Your task to perform on an android device: Open network settings Image 0: 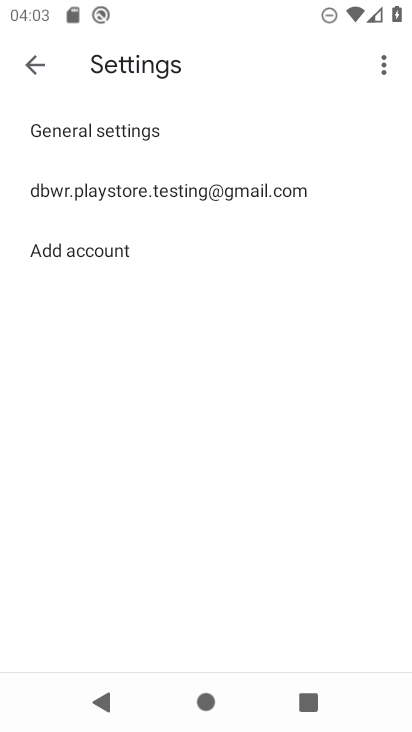
Step 0: press home button
Your task to perform on an android device: Open network settings Image 1: 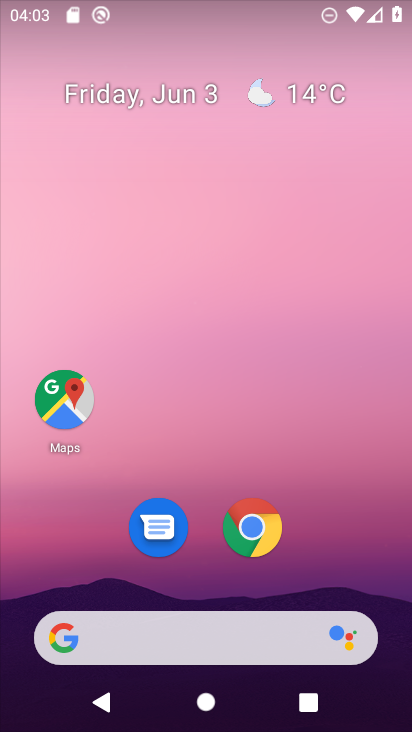
Step 1: drag from (353, 547) to (167, 53)
Your task to perform on an android device: Open network settings Image 2: 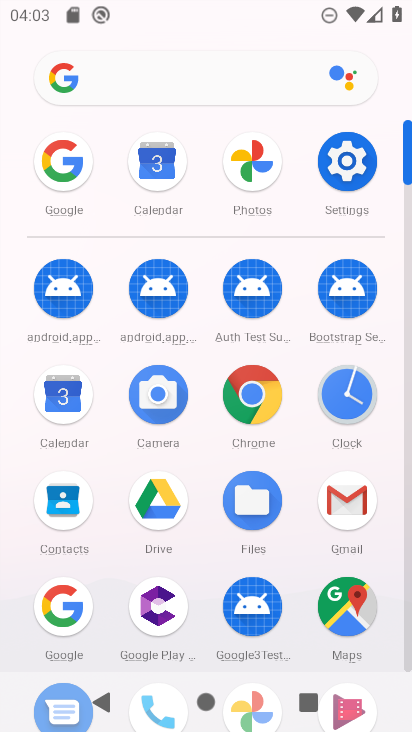
Step 2: click (346, 157)
Your task to perform on an android device: Open network settings Image 3: 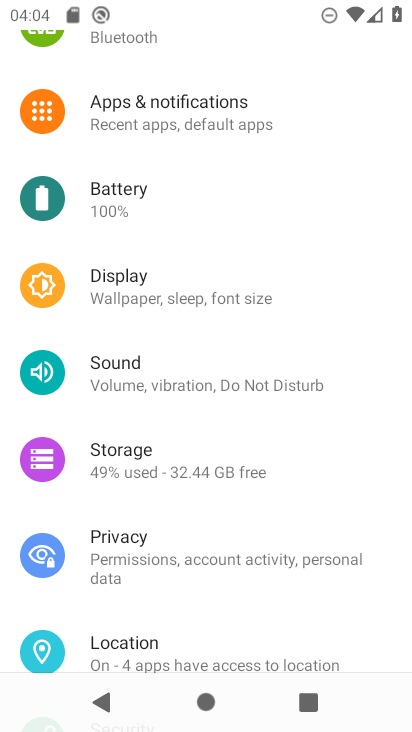
Step 3: drag from (233, 201) to (235, 416)
Your task to perform on an android device: Open network settings Image 4: 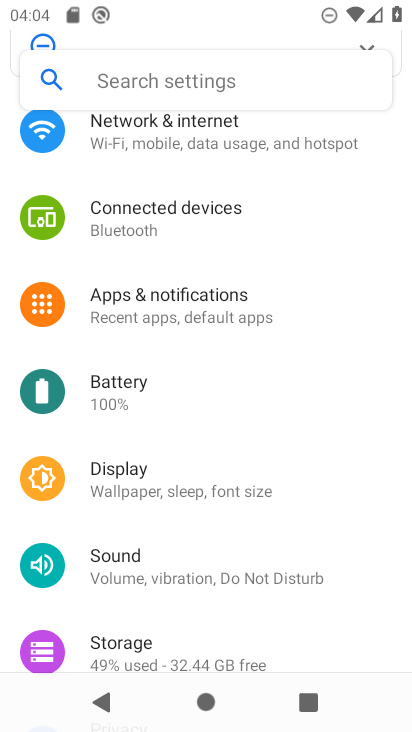
Step 4: drag from (204, 240) to (224, 423)
Your task to perform on an android device: Open network settings Image 5: 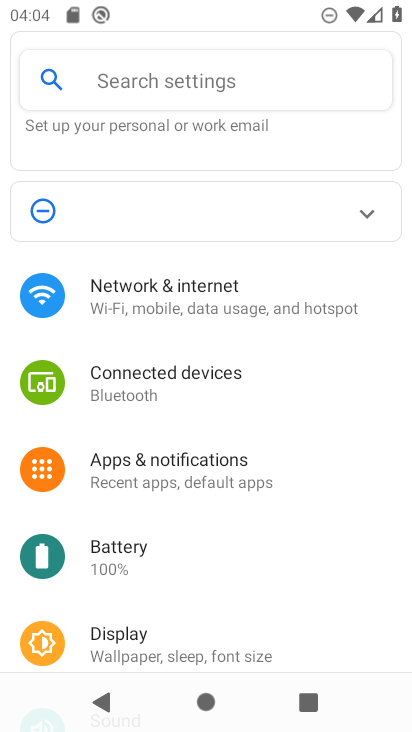
Step 5: click (184, 300)
Your task to perform on an android device: Open network settings Image 6: 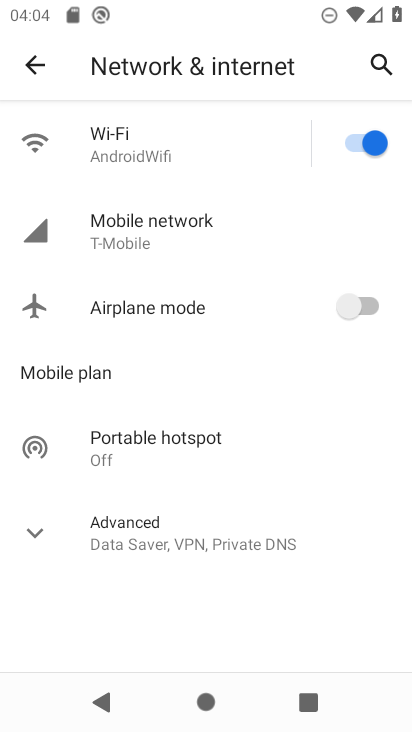
Step 6: click (127, 153)
Your task to perform on an android device: Open network settings Image 7: 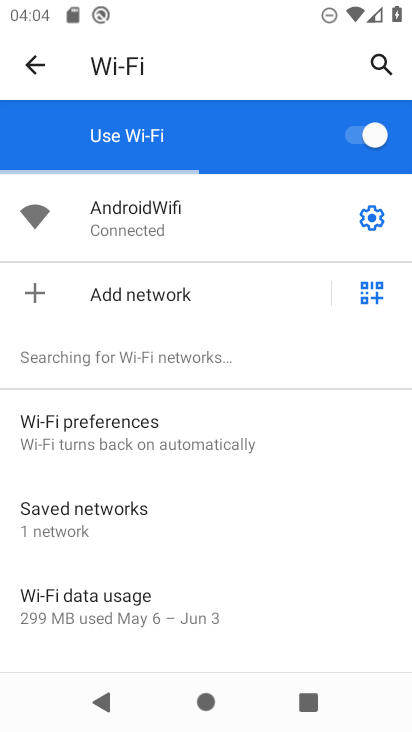
Step 7: task complete